Your task to perform on an android device: Search for usb-c on costco.com, select the first entry, add it to the cart, then select checkout. Image 0: 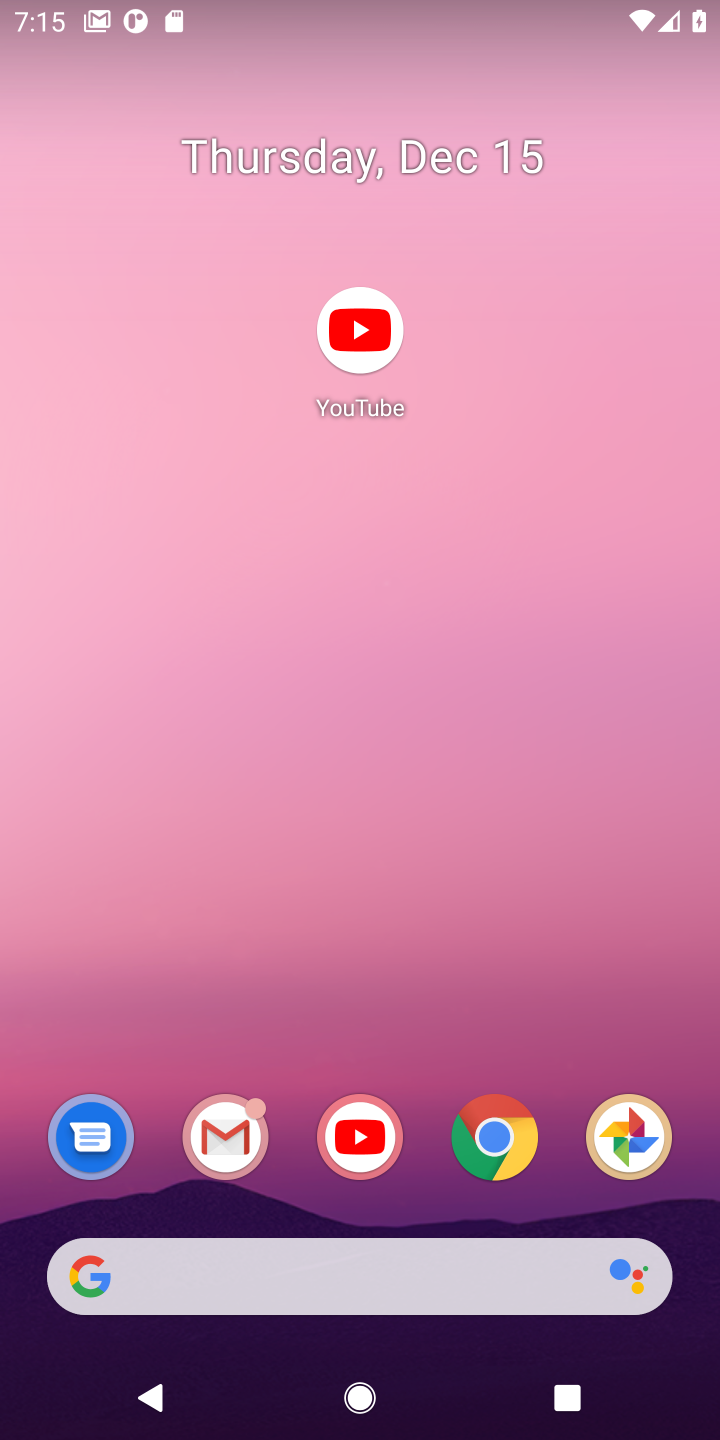
Step 0: drag from (373, 938) to (343, 208)
Your task to perform on an android device: Search for usb-c on costco.com, select the first entry, add it to the cart, then select checkout. Image 1: 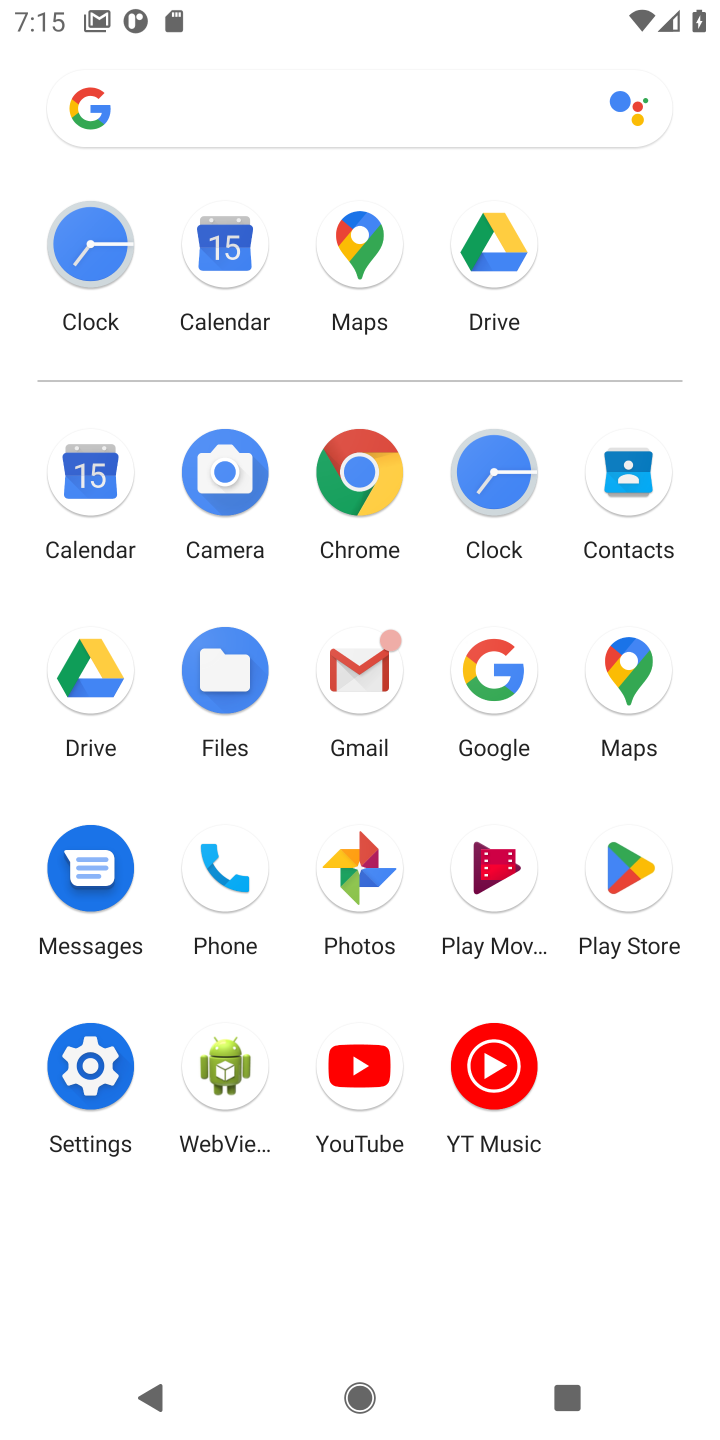
Step 1: click (493, 680)
Your task to perform on an android device: Search for usb-c on costco.com, select the first entry, add it to the cart, then select checkout. Image 2: 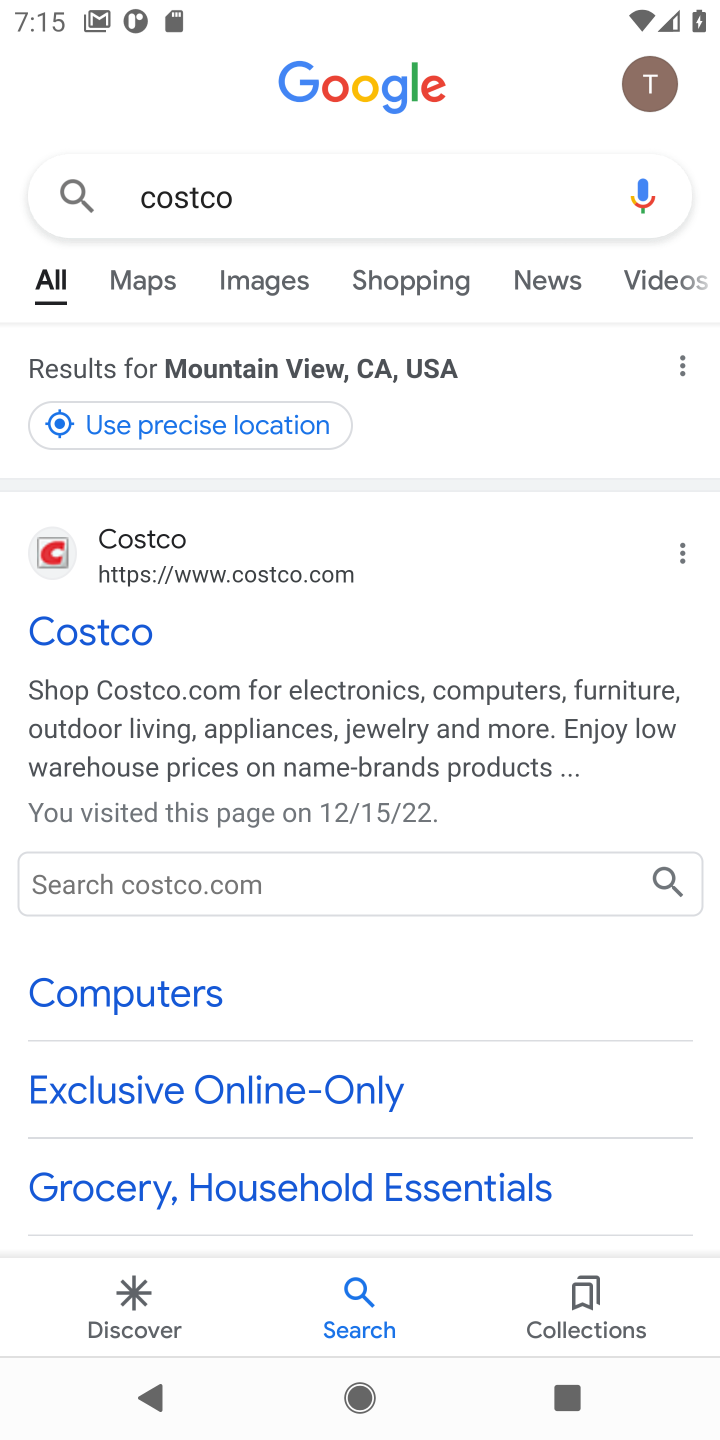
Step 2: click (265, 193)
Your task to perform on an android device: Search for usb-c on costco.com, select the first entry, add it to the cart, then select checkout. Image 3: 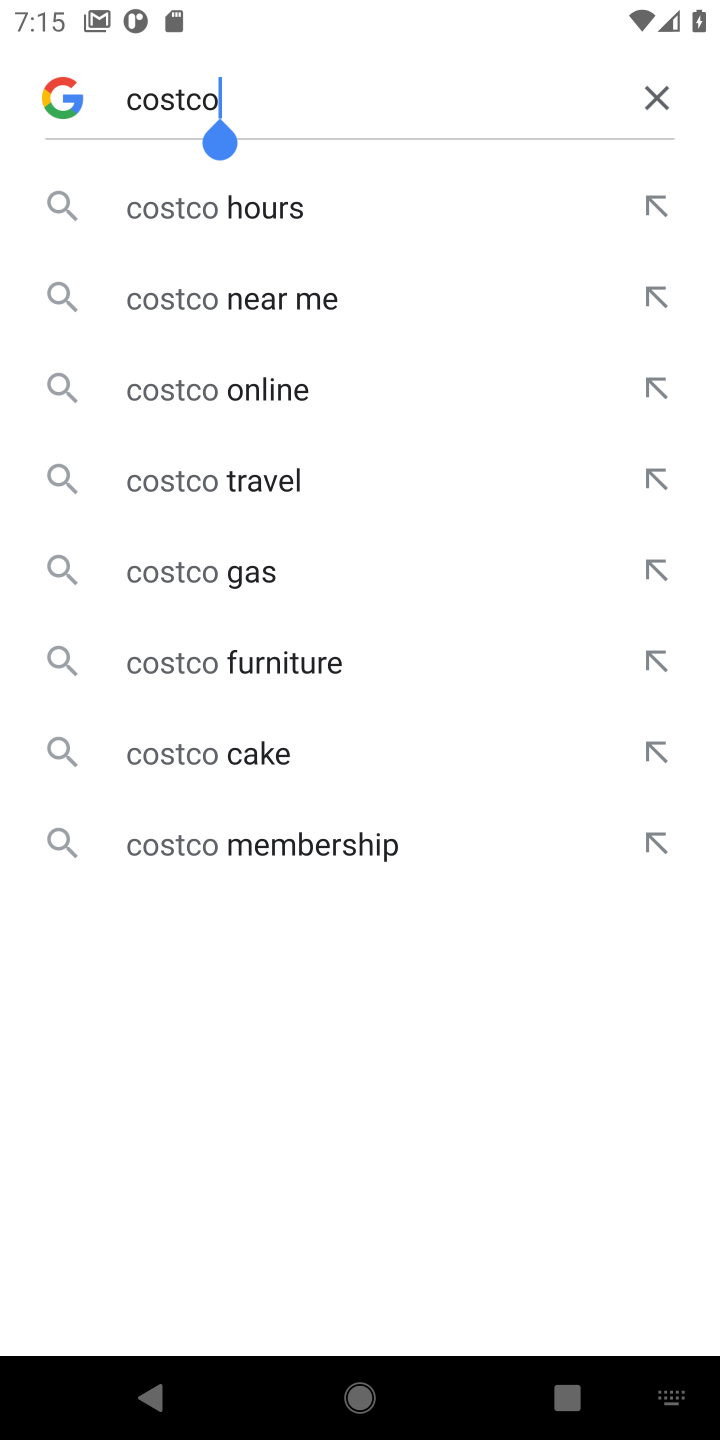
Step 3: click (669, 86)
Your task to perform on an android device: Search for usb-c on costco.com, select the first entry, add it to the cart, then select checkout. Image 4: 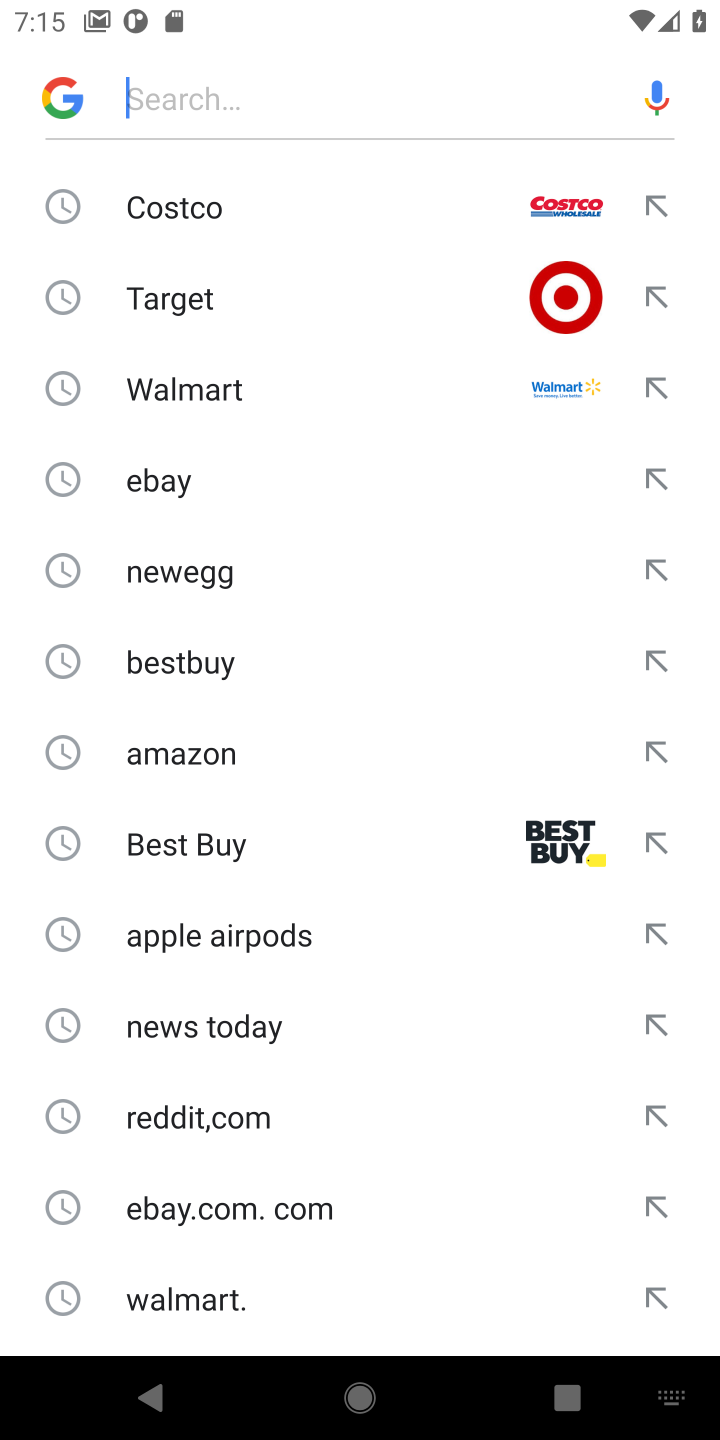
Step 4: click (174, 211)
Your task to perform on an android device: Search for usb-c on costco.com, select the first entry, add it to the cart, then select checkout. Image 5: 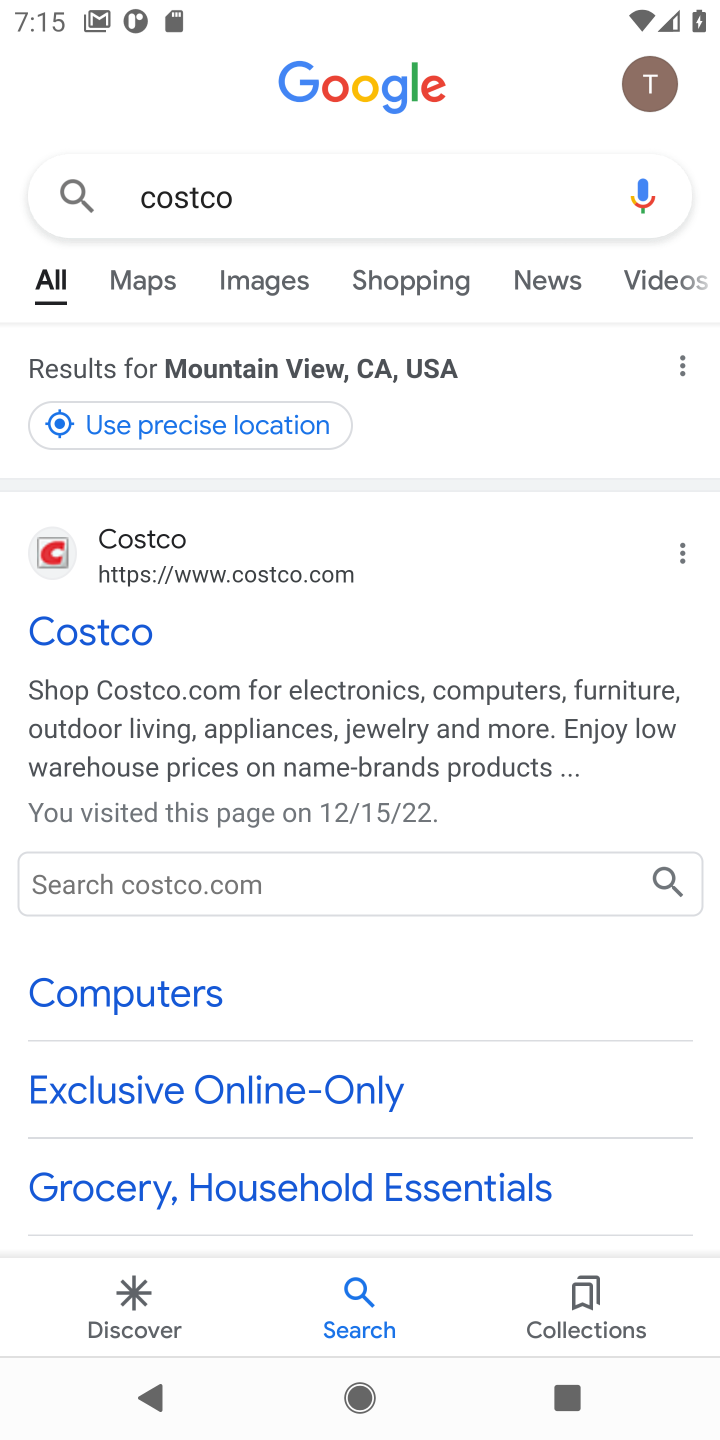
Step 5: click (80, 612)
Your task to perform on an android device: Search for usb-c on costco.com, select the first entry, add it to the cart, then select checkout. Image 6: 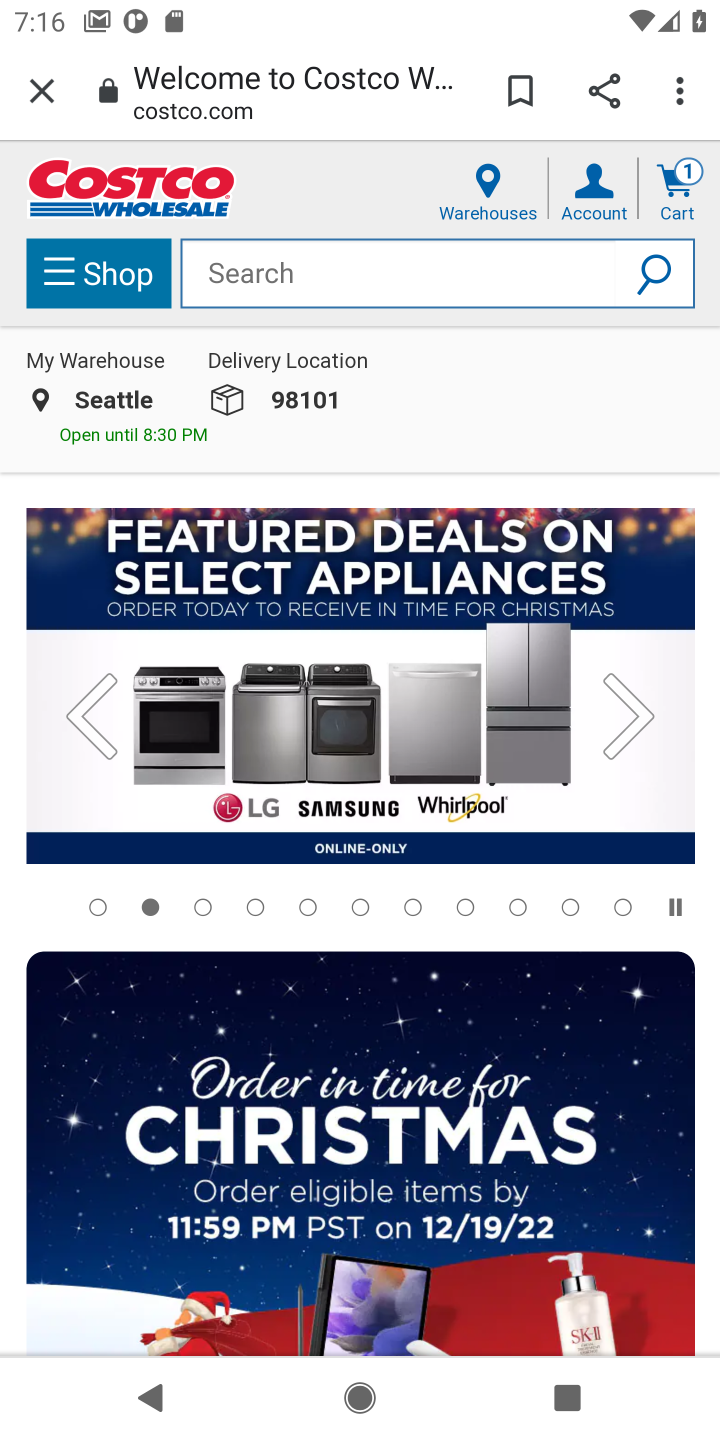
Step 6: click (305, 278)
Your task to perform on an android device: Search for usb-c on costco.com, select the first entry, add it to the cart, then select checkout. Image 7: 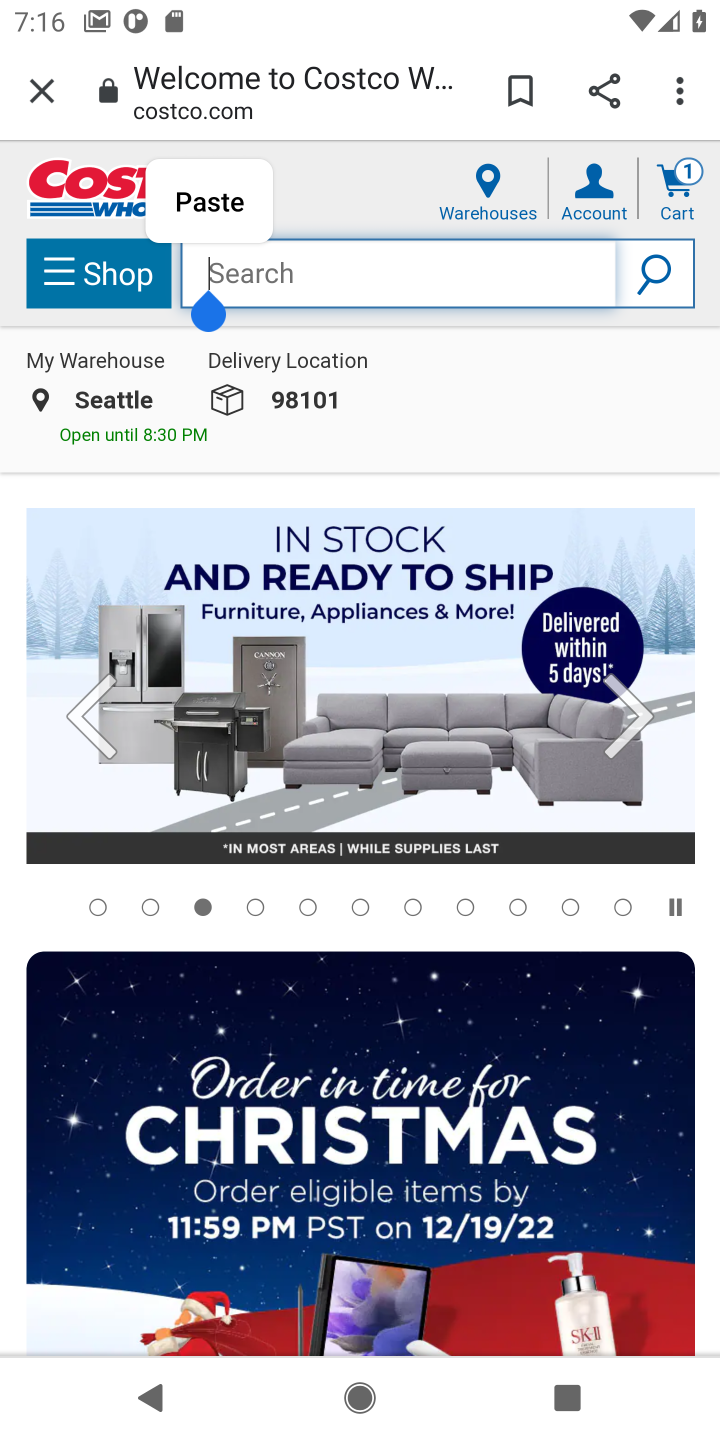
Step 7: type "usb-c"
Your task to perform on an android device: Search for usb-c on costco.com, select the first entry, add it to the cart, then select checkout. Image 8: 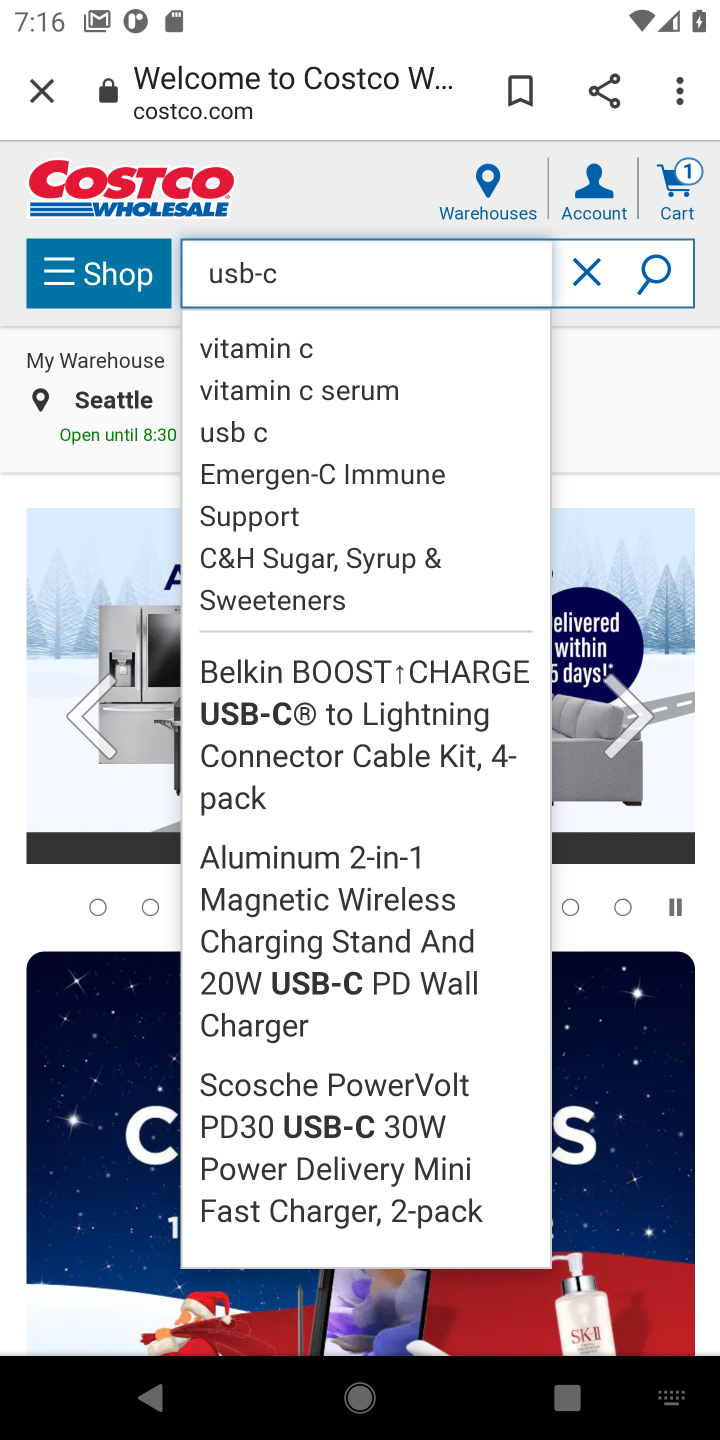
Step 8: click (646, 267)
Your task to perform on an android device: Search for usb-c on costco.com, select the first entry, add it to the cart, then select checkout. Image 9: 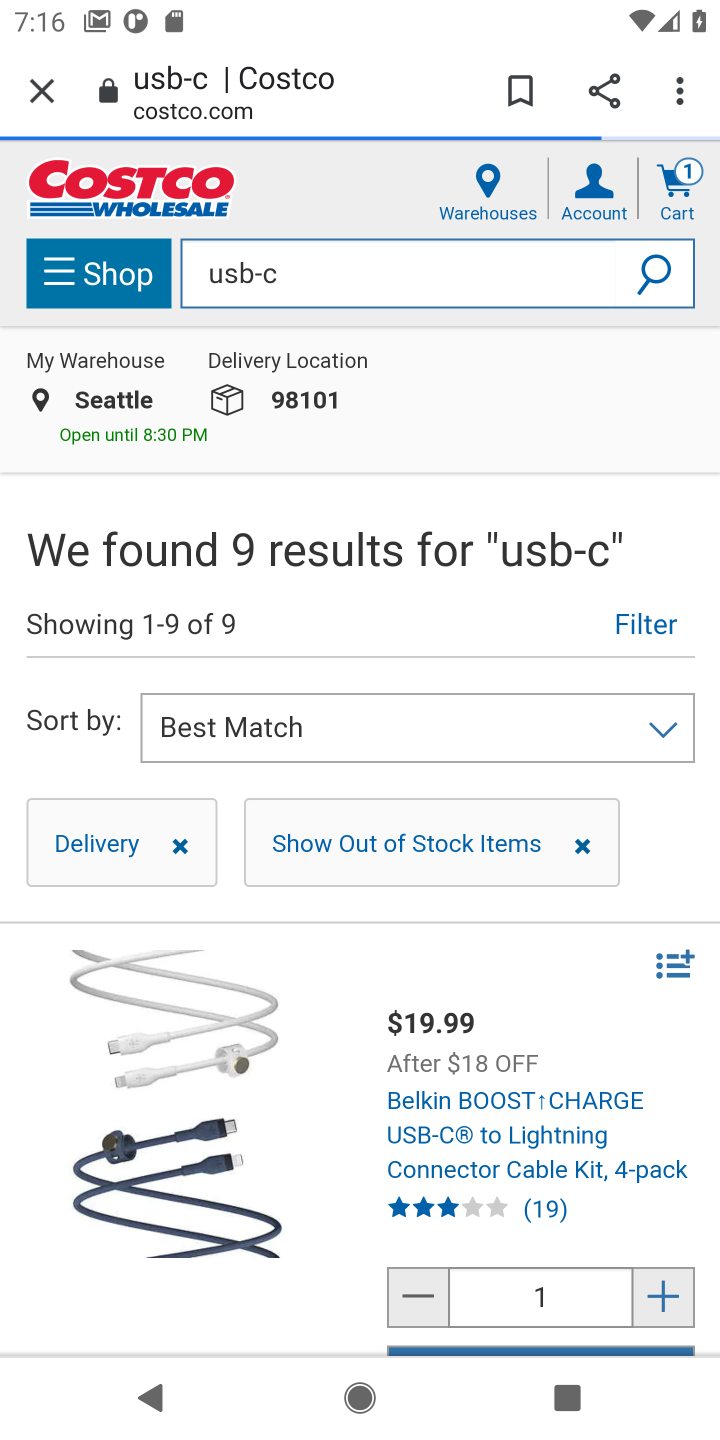
Step 9: drag from (490, 1073) to (507, 572)
Your task to perform on an android device: Search for usb-c on costco.com, select the first entry, add it to the cart, then select checkout. Image 10: 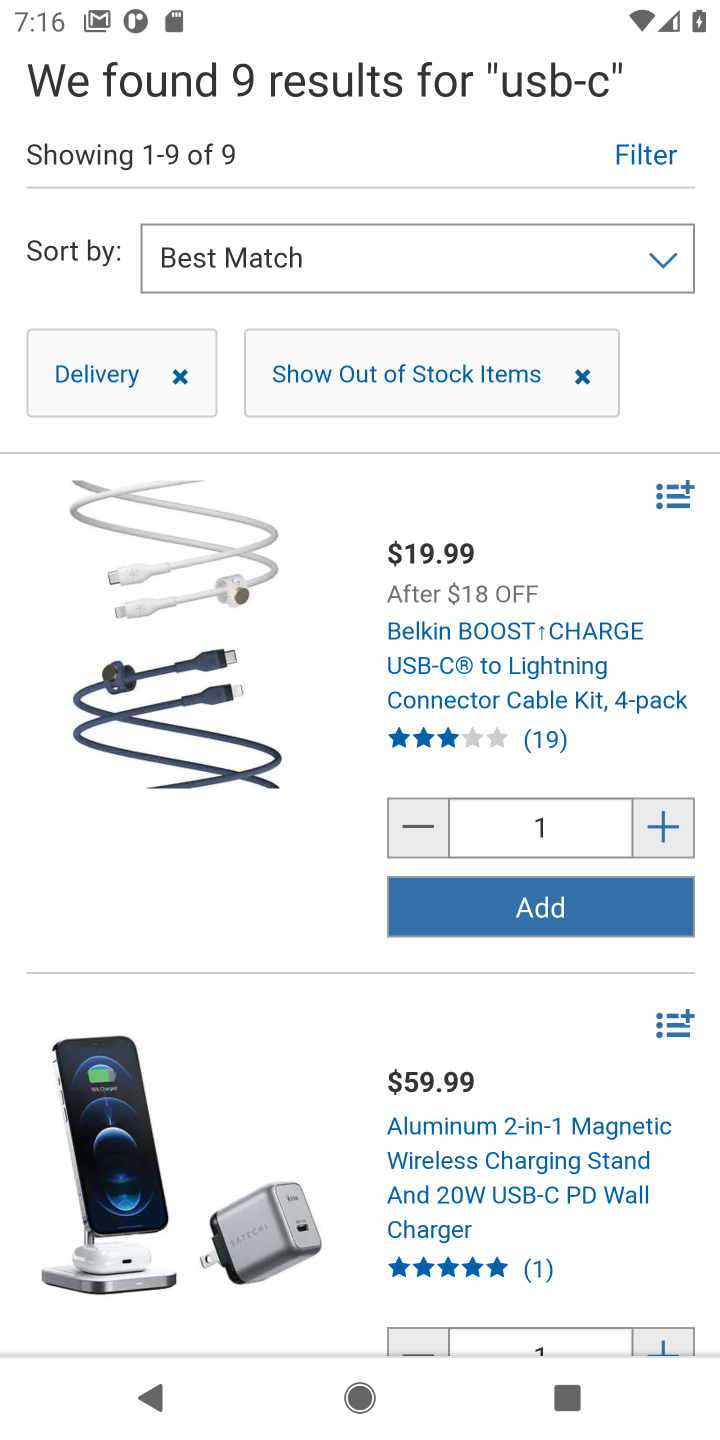
Step 10: click (557, 910)
Your task to perform on an android device: Search for usb-c on costco.com, select the first entry, add it to the cart, then select checkout. Image 11: 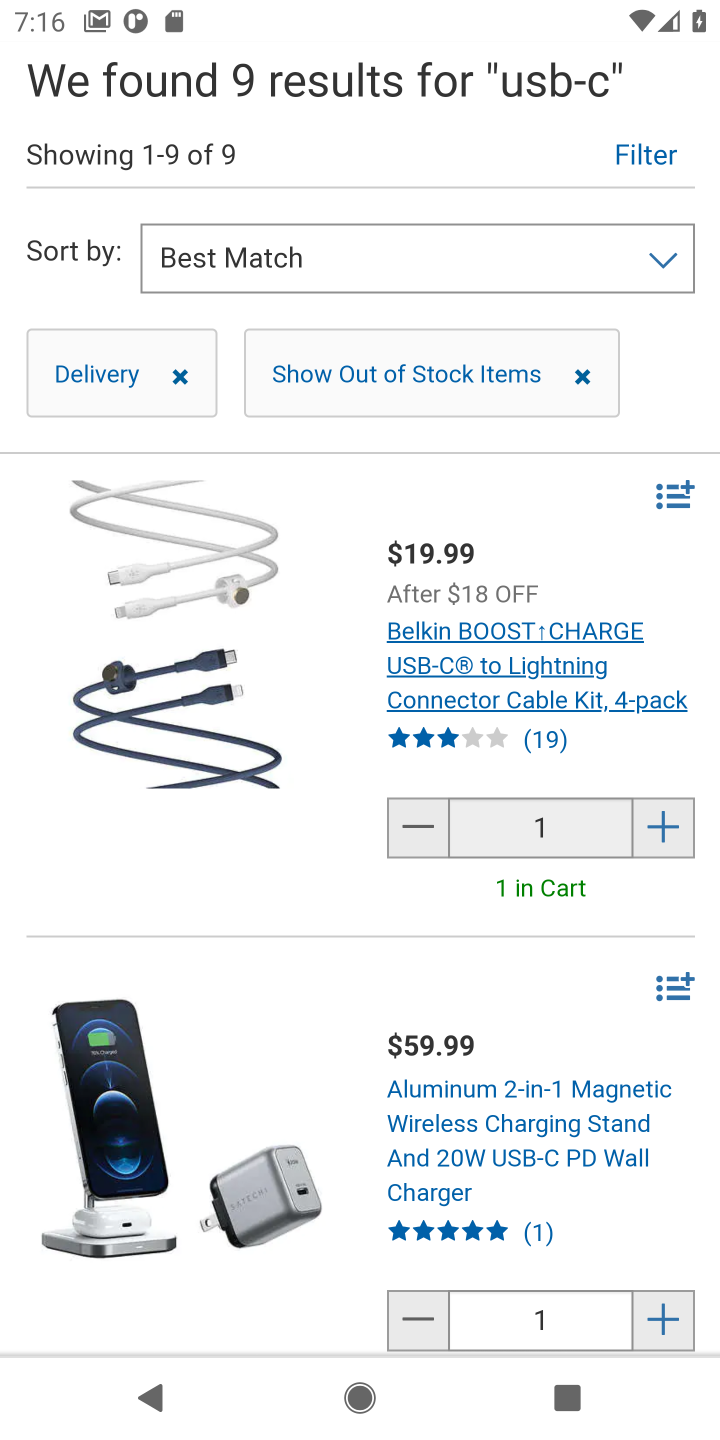
Step 11: drag from (215, 329) to (287, 856)
Your task to perform on an android device: Search for usb-c on costco.com, select the first entry, add it to the cart, then select checkout. Image 12: 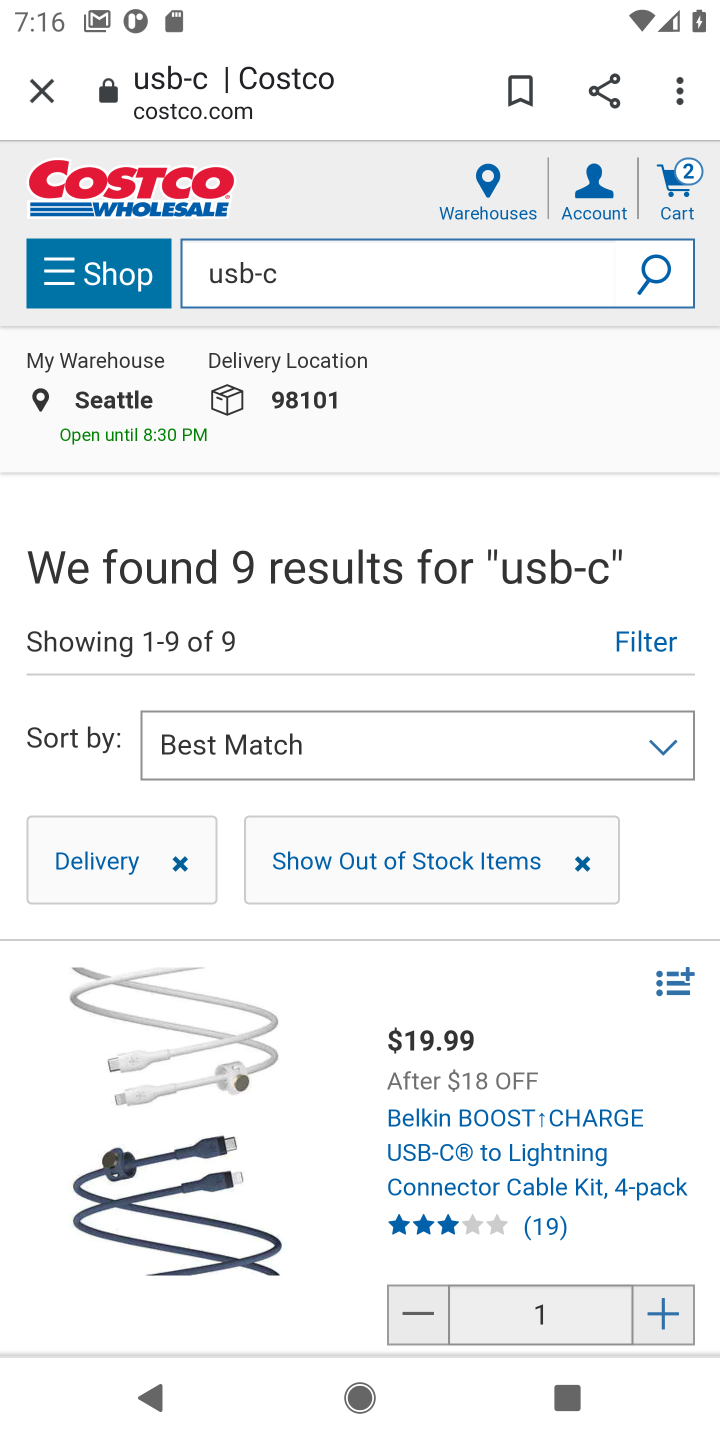
Step 12: click (668, 177)
Your task to perform on an android device: Search for usb-c on costco.com, select the first entry, add it to the cart, then select checkout. Image 13: 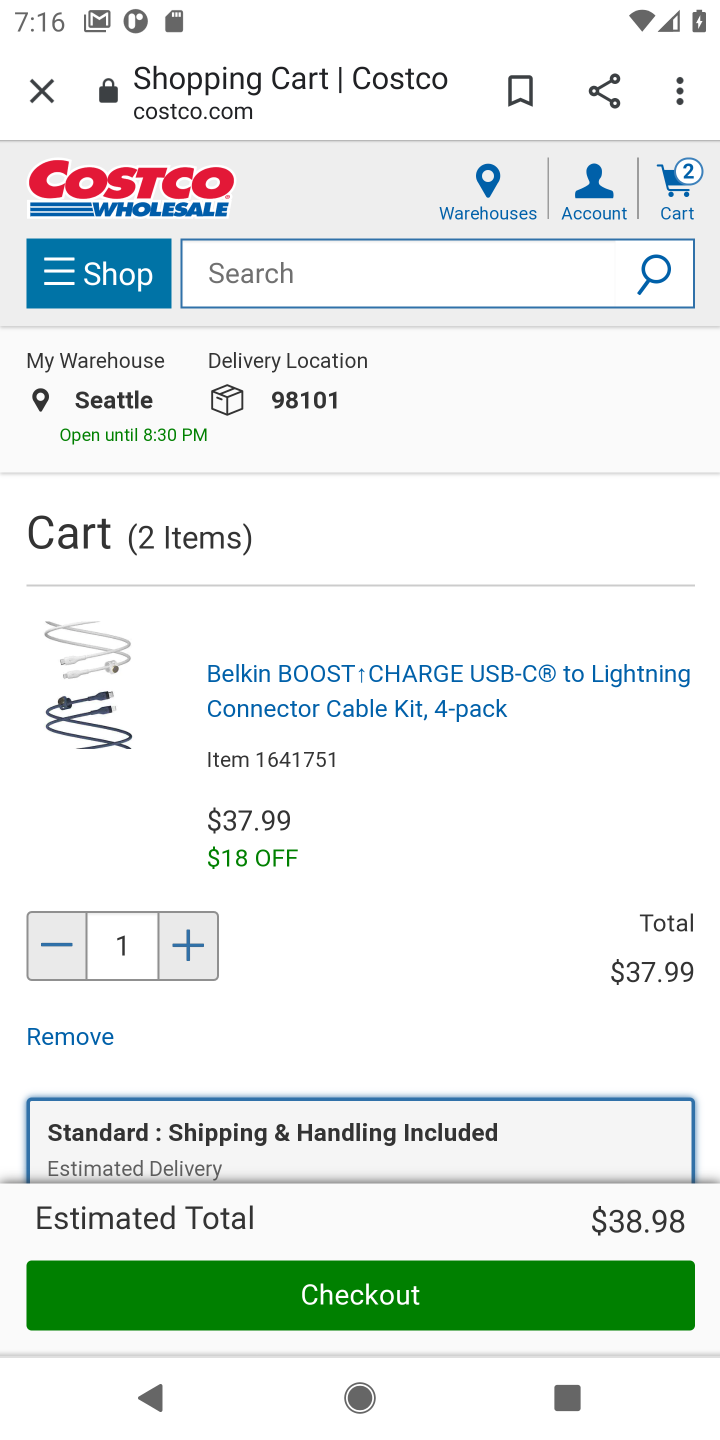
Step 13: click (354, 1297)
Your task to perform on an android device: Search for usb-c on costco.com, select the first entry, add it to the cart, then select checkout. Image 14: 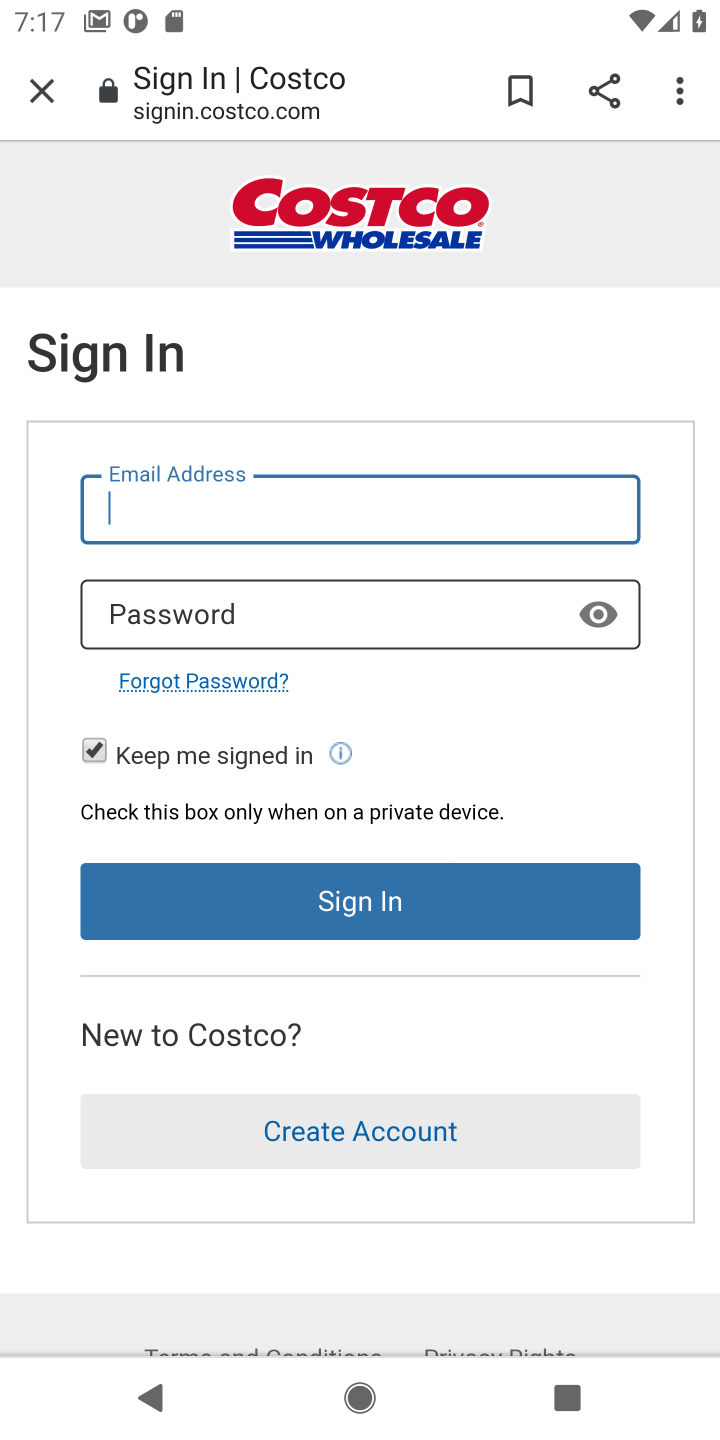
Step 14: task complete